Your task to perform on an android device: Open my contact list Image 0: 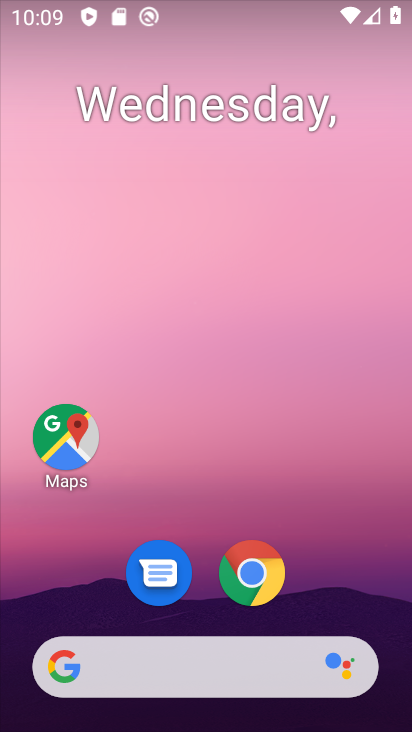
Step 0: drag from (297, 598) to (261, 133)
Your task to perform on an android device: Open my contact list Image 1: 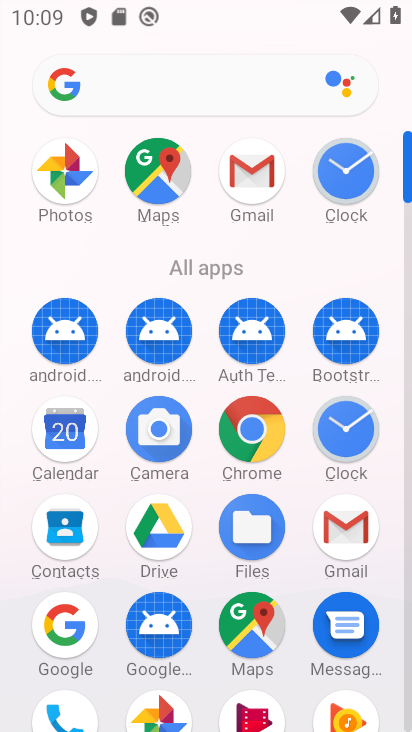
Step 1: click (70, 540)
Your task to perform on an android device: Open my contact list Image 2: 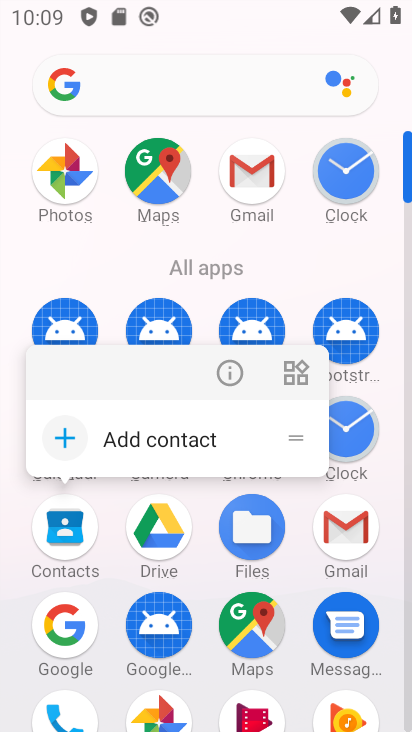
Step 2: click (70, 540)
Your task to perform on an android device: Open my contact list Image 3: 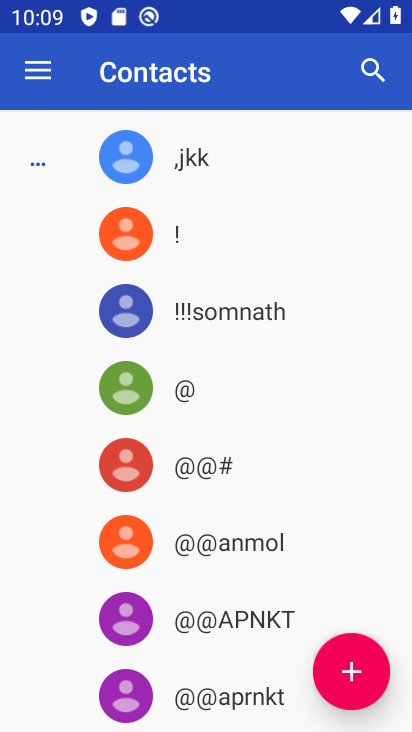
Step 3: task complete